Your task to perform on an android device: Go to Google Image 0: 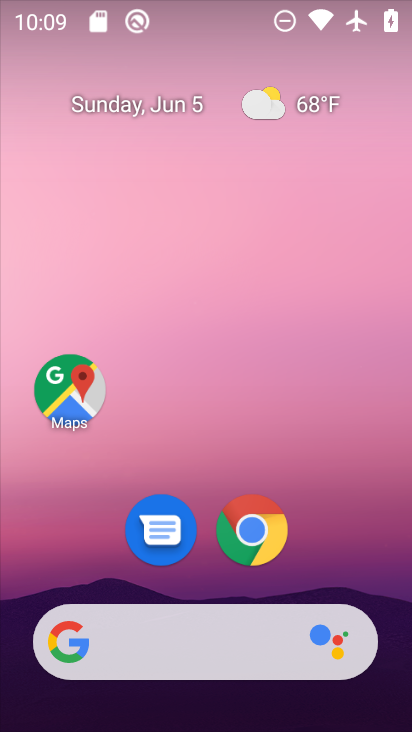
Step 0: click (256, 529)
Your task to perform on an android device: Go to Google Image 1: 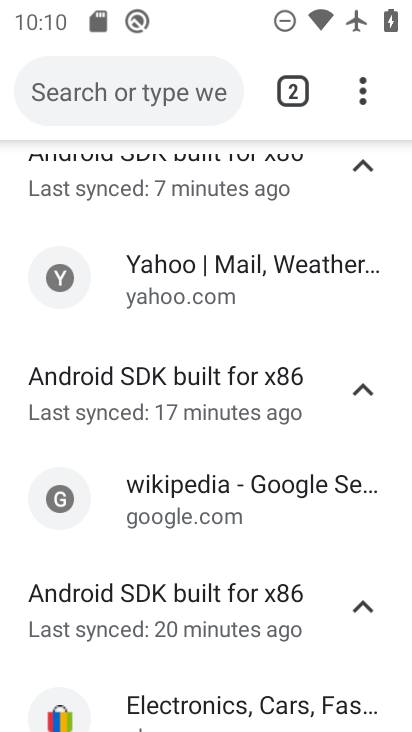
Step 1: task complete